Your task to perform on an android device: turn on bluetooth scan Image 0: 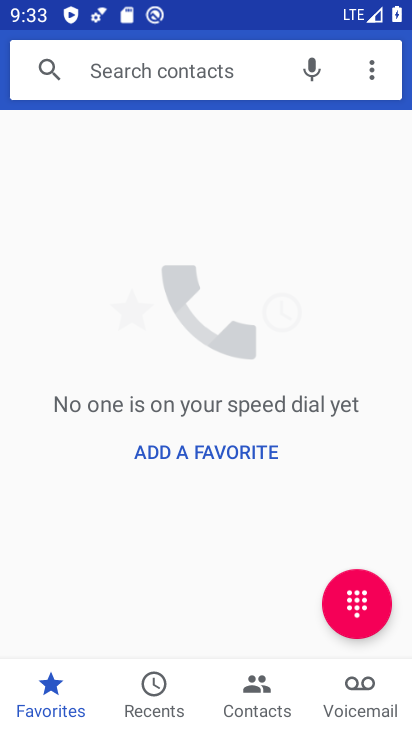
Step 0: press home button
Your task to perform on an android device: turn on bluetooth scan Image 1: 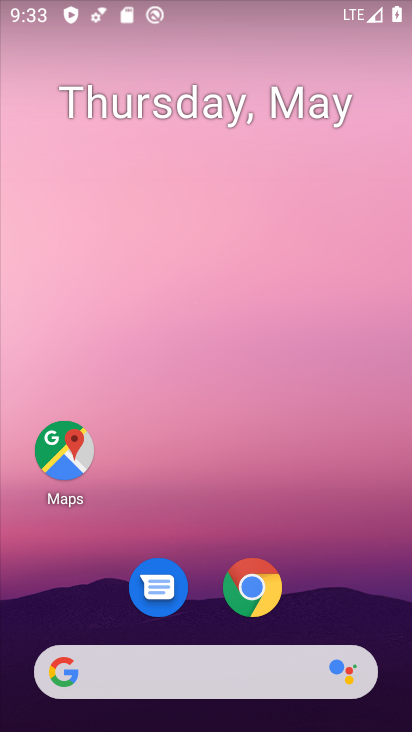
Step 1: drag from (343, 624) to (273, 3)
Your task to perform on an android device: turn on bluetooth scan Image 2: 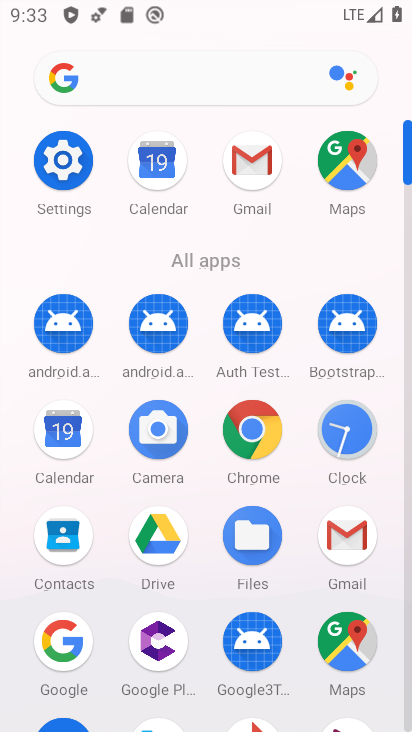
Step 2: click (61, 165)
Your task to perform on an android device: turn on bluetooth scan Image 3: 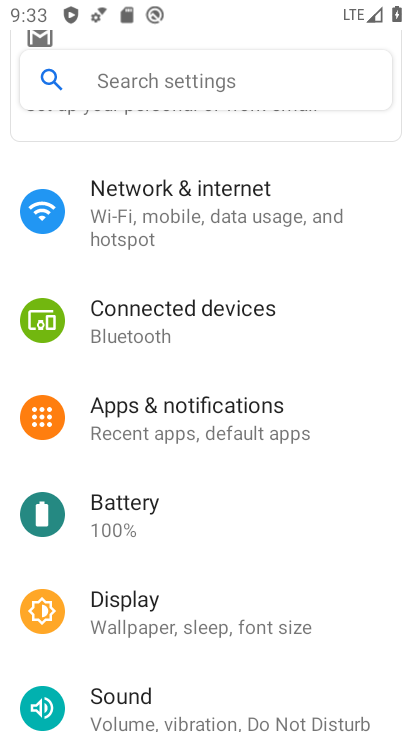
Step 3: drag from (265, 555) to (234, 152)
Your task to perform on an android device: turn on bluetooth scan Image 4: 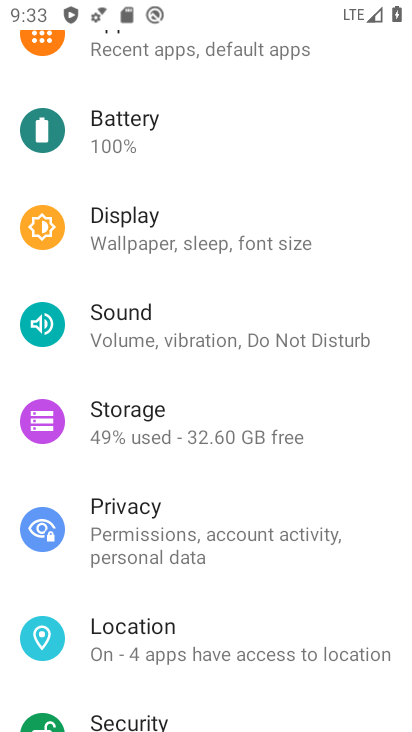
Step 4: click (166, 647)
Your task to perform on an android device: turn on bluetooth scan Image 5: 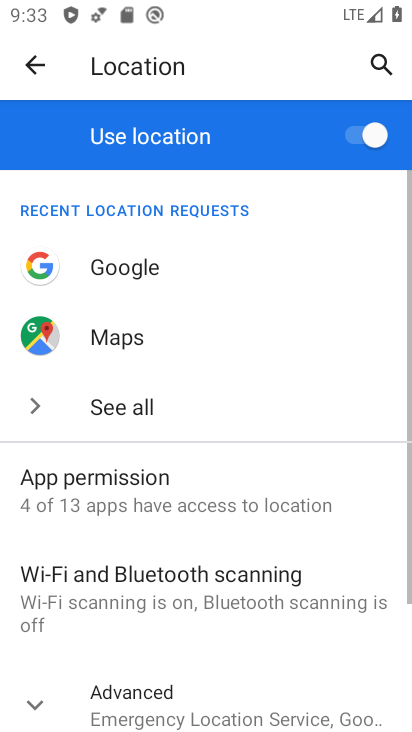
Step 5: click (175, 587)
Your task to perform on an android device: turn on bluetooth scan Image 6: 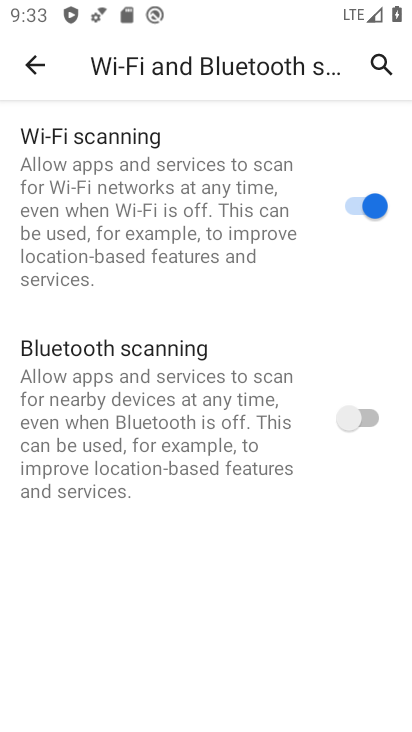
Step 6: click (343, 411)
Your task to perform on an android device: turn on bluetooth scan Image 7: 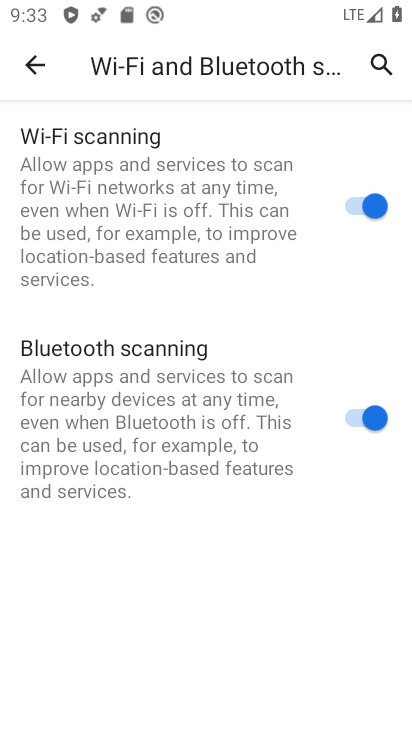
Step 7: task complete